Your task to perform on an android device: manage bookmarks in the chrome app Image 0: 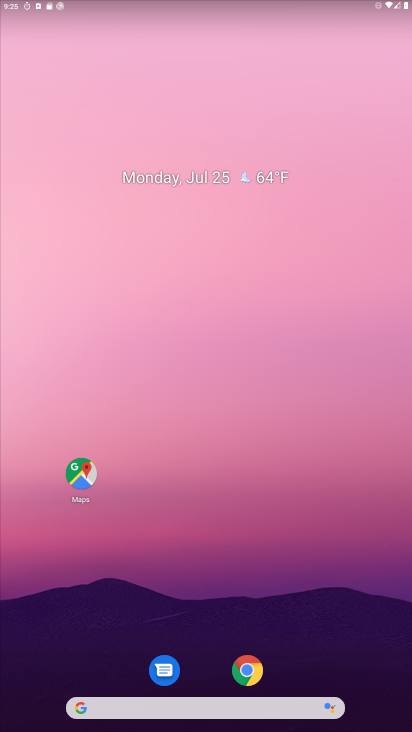
Step 0: drag from (320, 637) to (138, 103)
Your task to perform on an android device: manage bookmarks in the chrome app Image 1: 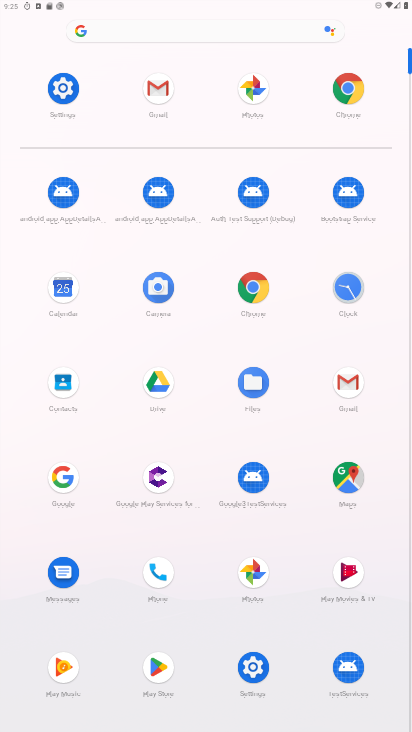
Step 1: click (260, 293)
Your task to perform on an android device: manage bookmarks in the chrome app Image 2: 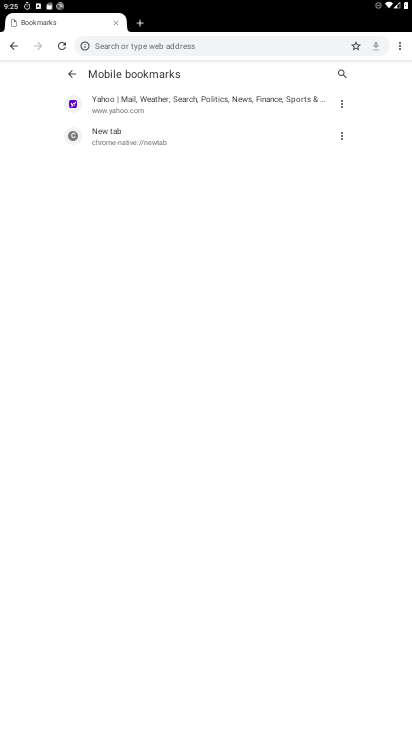
Step 2: task complete